Your task to perform on an android device: add a contact in the contacts app Image 0: 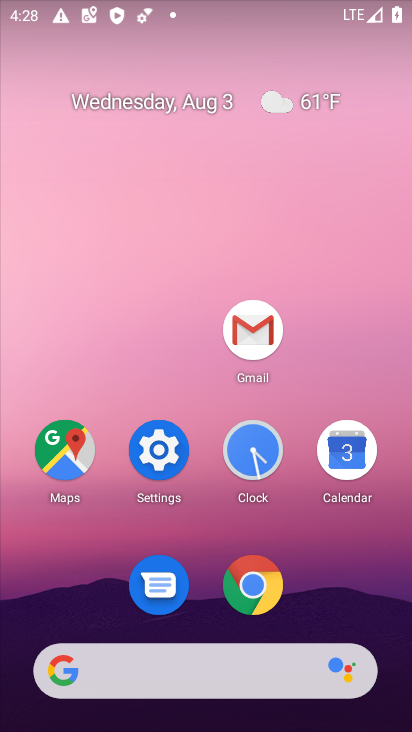
Step 0: drag from (387, 667) to (303, 65)
Your task to perform on an android device: add a contact in the contacts app Image 1: 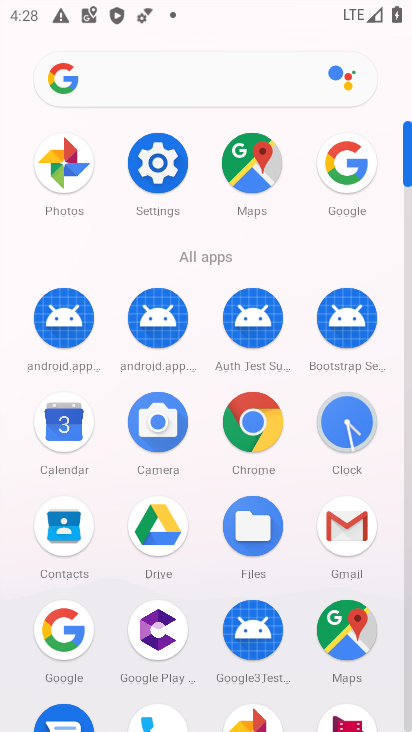
Step 1: drag from (297, 696) to (277, 324)
Your task to perform on an android device: add a contact in the contacts app Image 2: 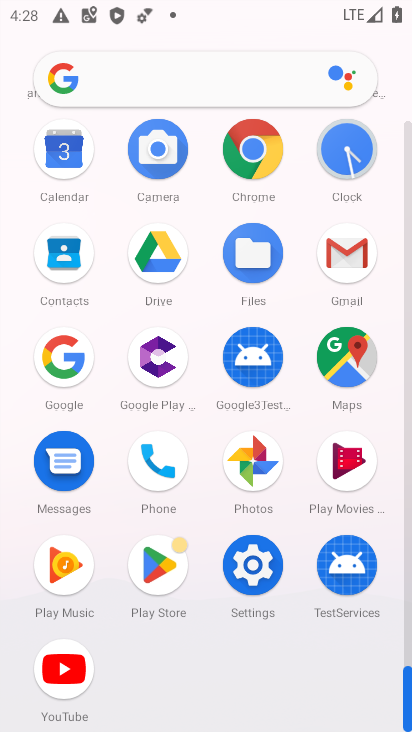
Step 2: click (77, 260)
Your task to perform on an android device: add a contact in the contacts app Image 3: 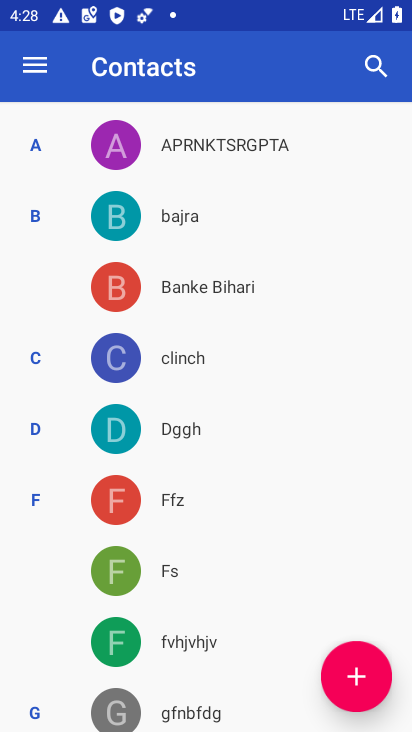
Step 3: click (353, 684)
Your task to perform on an android device: add a contact in the contacts app Image 4: 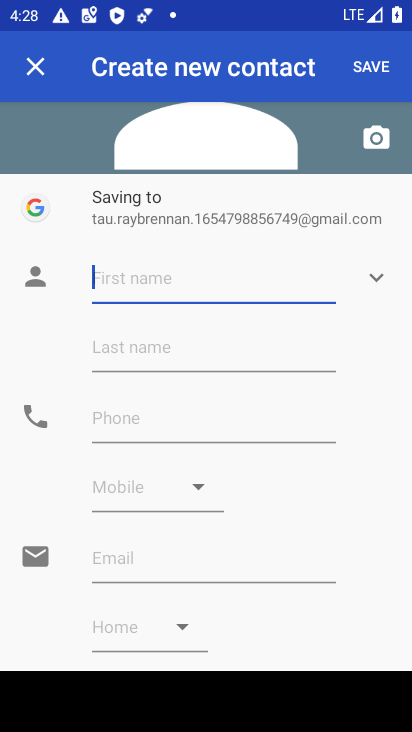
Step 4: type "dxcmbvgfxg"
Your task to perform on an android device: add a contact in the contacts app Image 5: 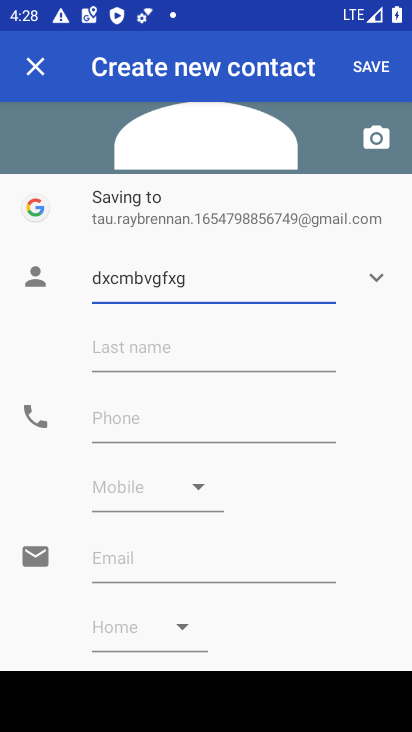
Step 5: click (123, 349)
Your task to perform on an android device: add a contact in the contacts app Image 6: 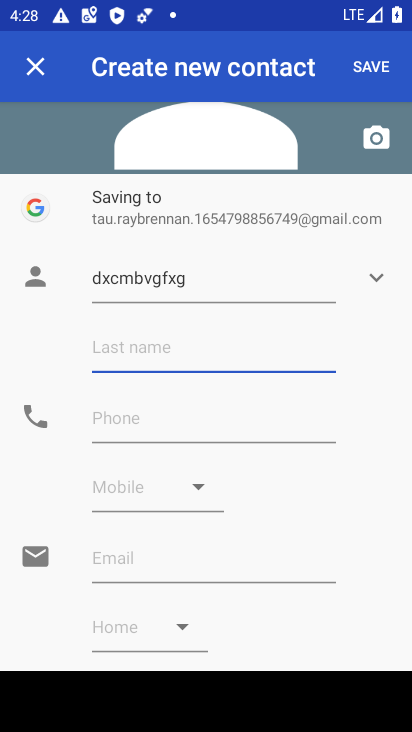
Step 6: type "dvasvfbfv"
Your task to perform on an android device: add a contact in the contacts app Image 7: 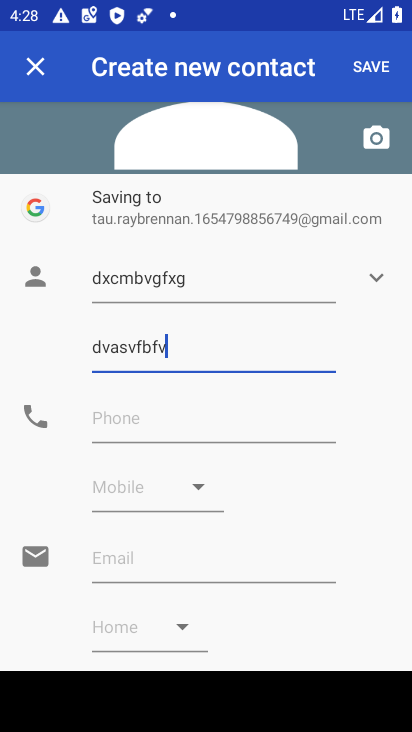
Step 7: click (141, 410)
Your task to perform on an android device: add a contact in the contacts app Image 8: 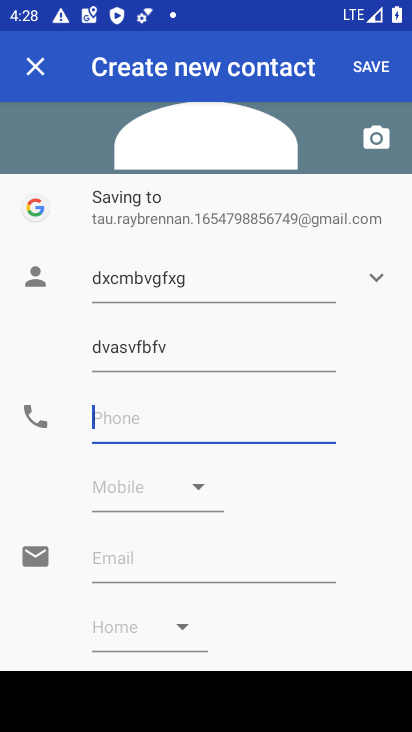
Step 8: type "62362356235656"
Your task to perform on an android device: add a contact in the contacts app Image 9: 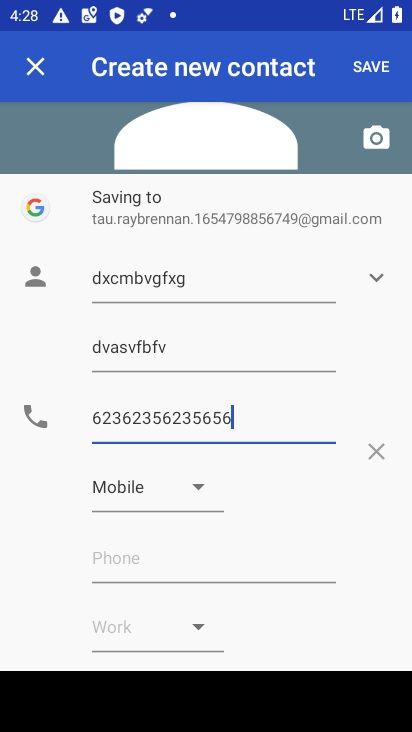
Step 9: click (375, 59)
Your task to perform on an android device: add a contact in the contacts app Image 10: 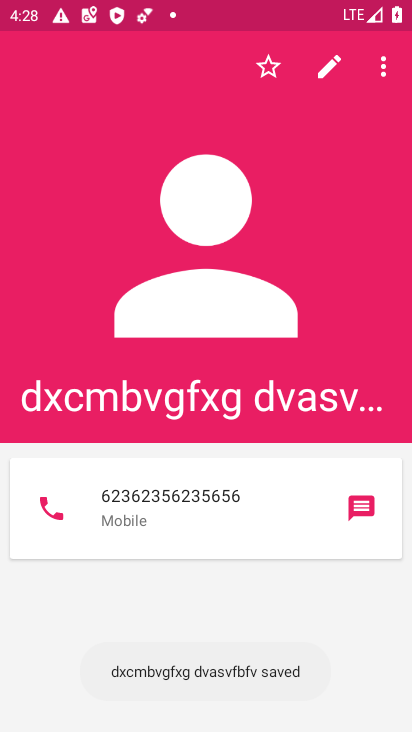
Step 10: task complete